Your task to perform on an android device: Go to accessibility settings Image 0: 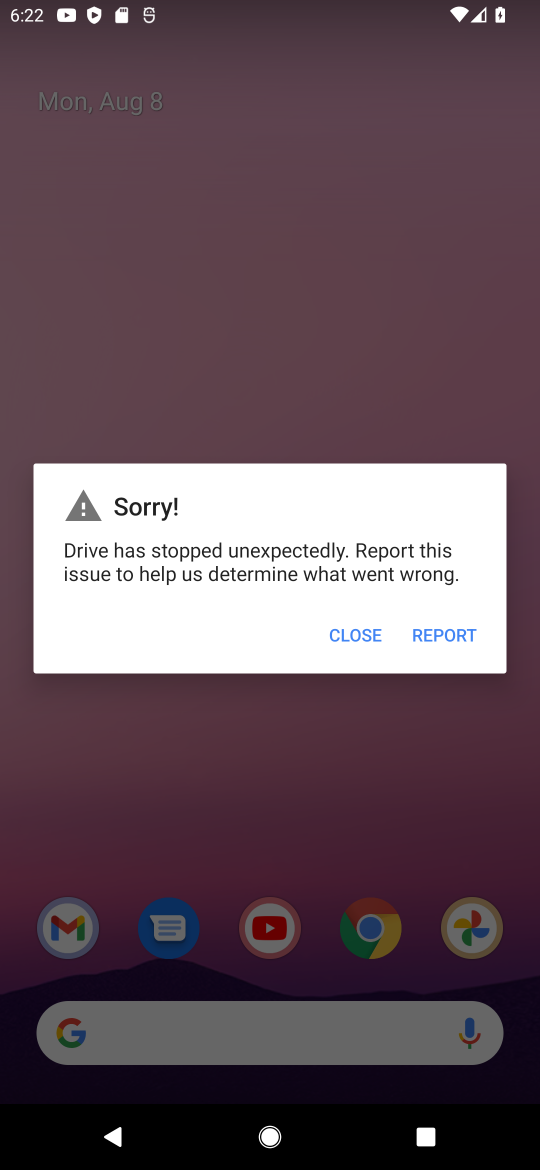
Step 0: press home button
Your task to perform on an android device: Go to accessibility settings Image 1: 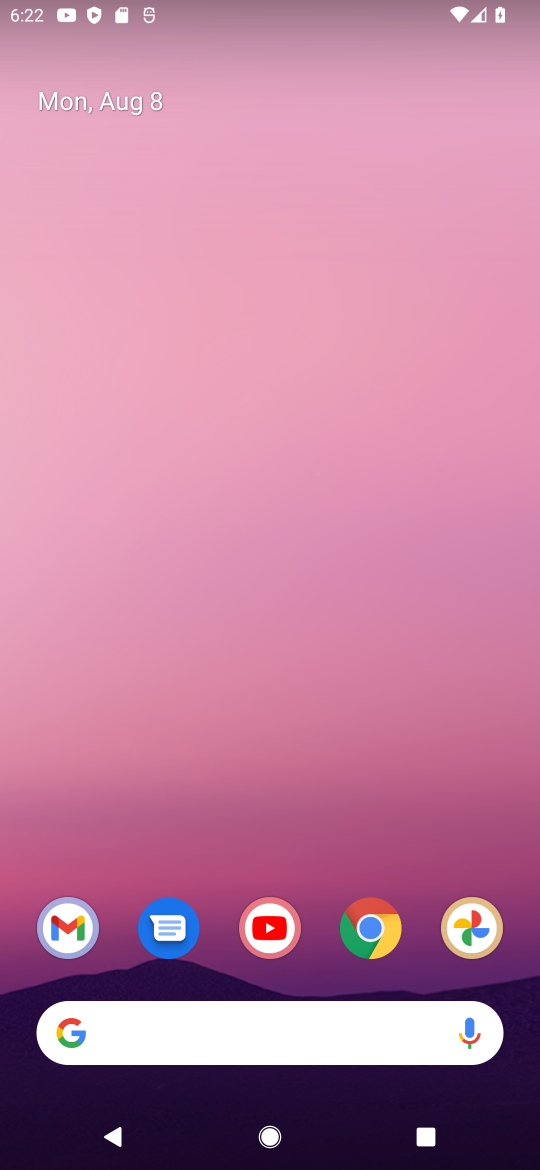
Step 1: drag from (361, 1076) to (390, 564)
Your task to perform on an android device: Go to accessibility settings Image 2: 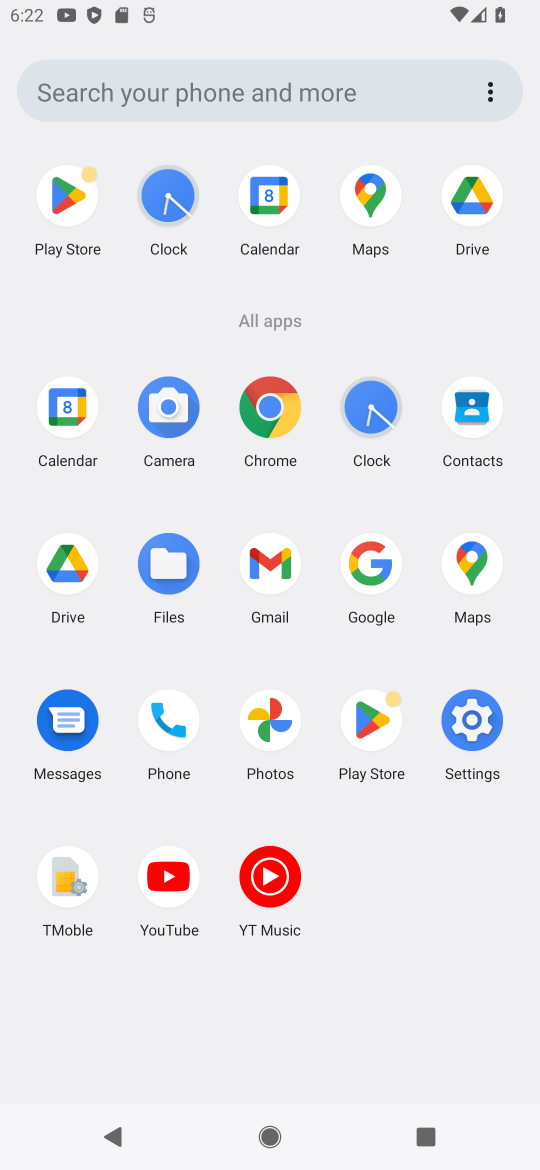
Step 2: click (482, 729)
Your task to perform on an android device: Go to accessibility settings Image 3: 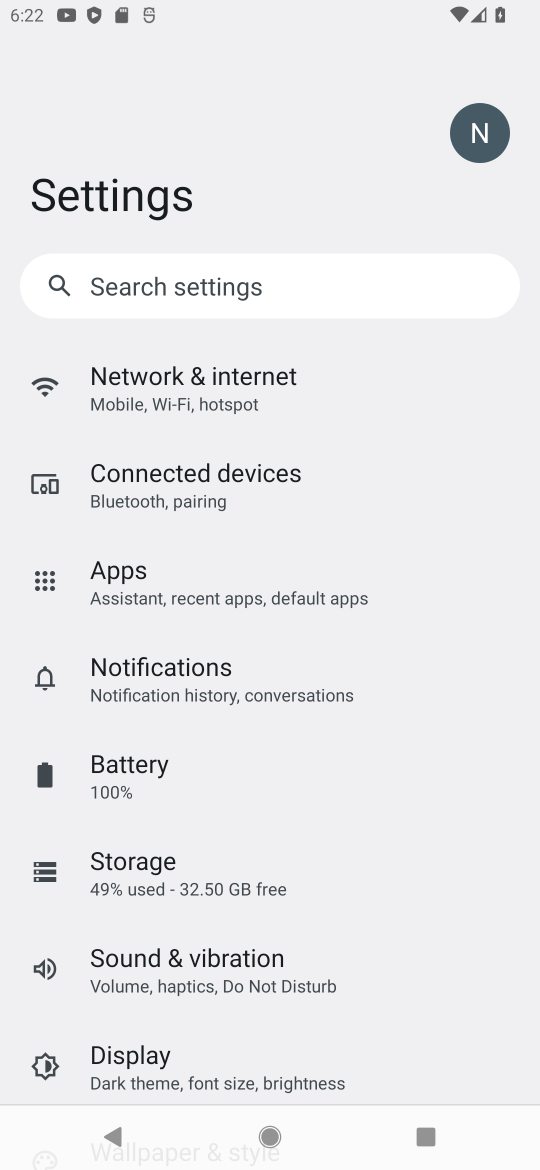
Step 3: click (211, 280)
Your task to perform on an android device: Go to accessibility settings Image 4: 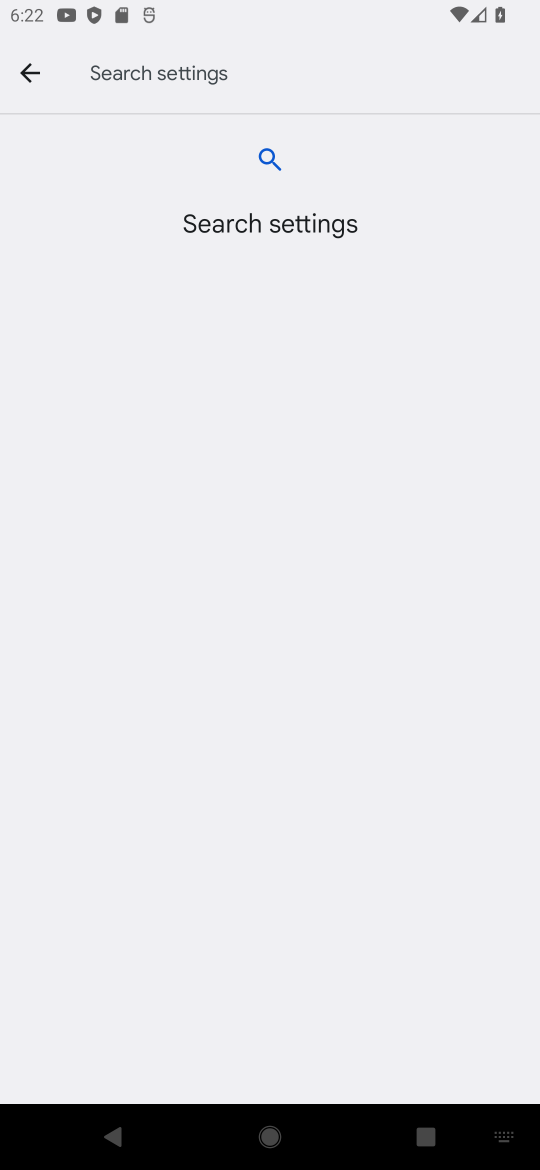
Step 4: drag from (473, 1142) to (450, 877)
Your task to perform on an android device: Go to accessibility settings Image 5: 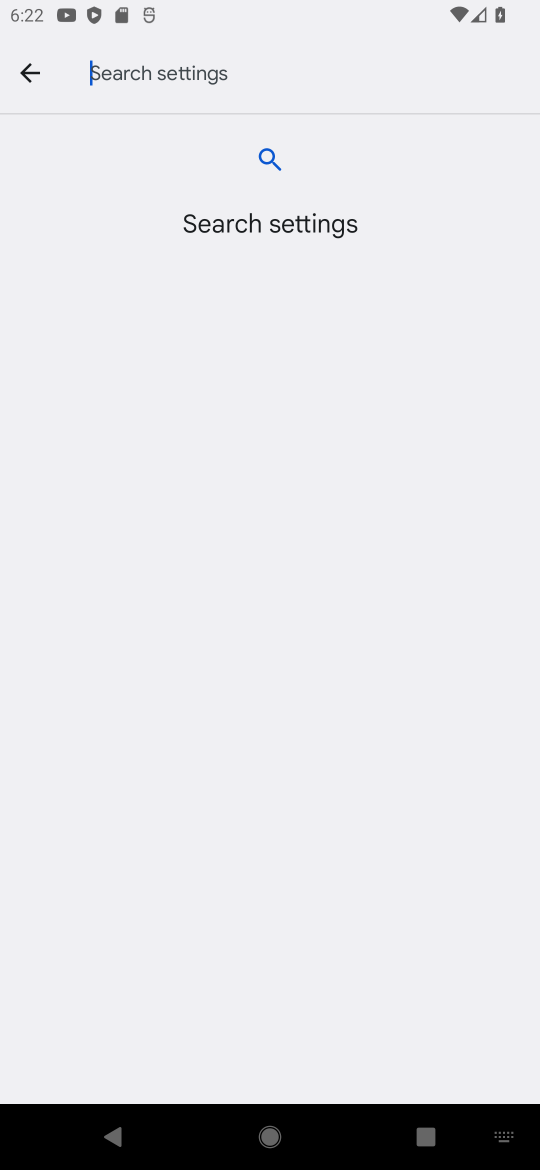
Step 5: click (500, 1134)
Your task to perform on an android device: Go to accessibility settings Image 6: 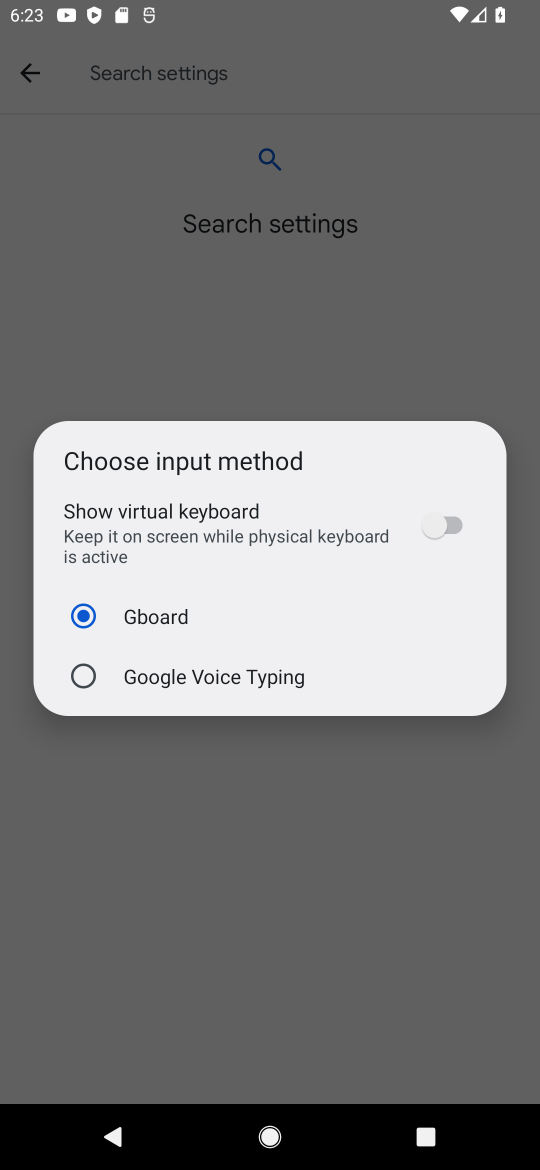
Step 6: click (440, 522)
Your task to perform on an android device: Go to accessibility settings Image 7: 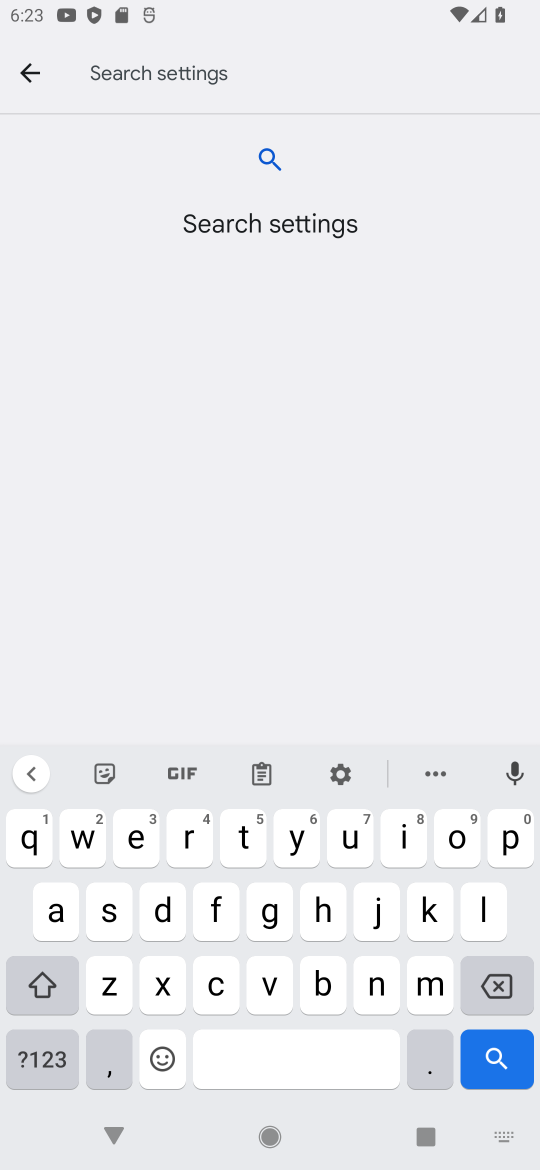
Step 7: click (47, 914)
Your task to perform on an android device: Go to accessibility settings Image 8: 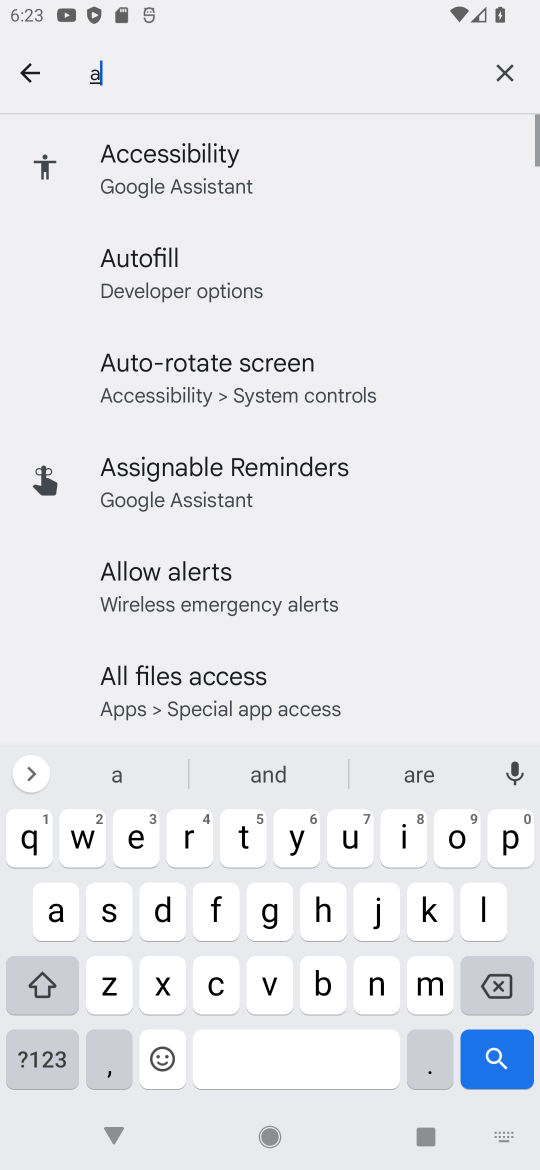
Step 8: click (208, 988)
Your task to perform on an android device: Go to accessibility settings Image 9: 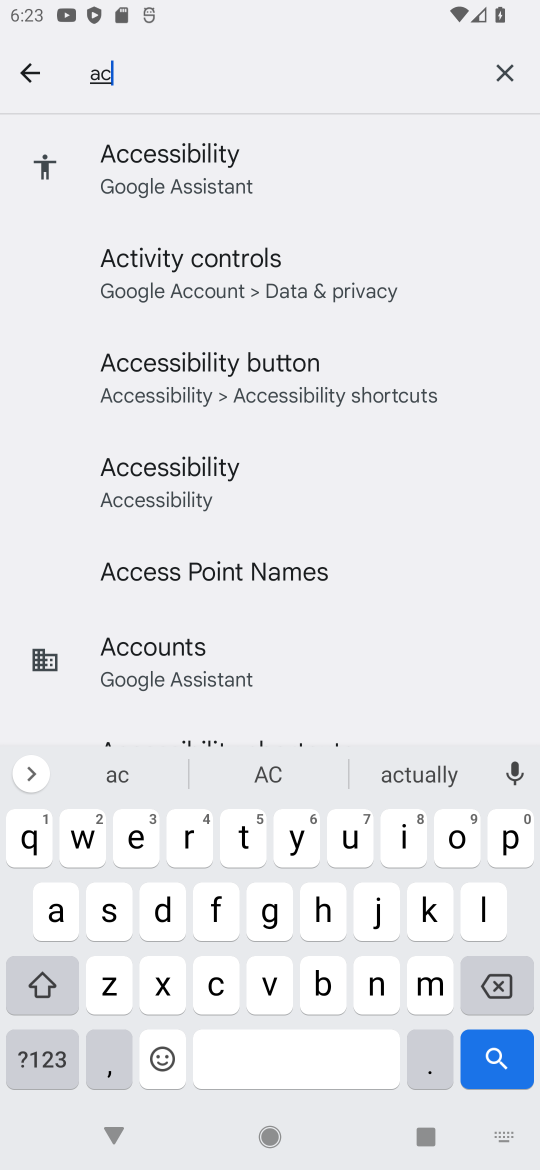
Step 9: click (198, 154)
Your task to perform on an android device: Go to accessibility settings Image 10: 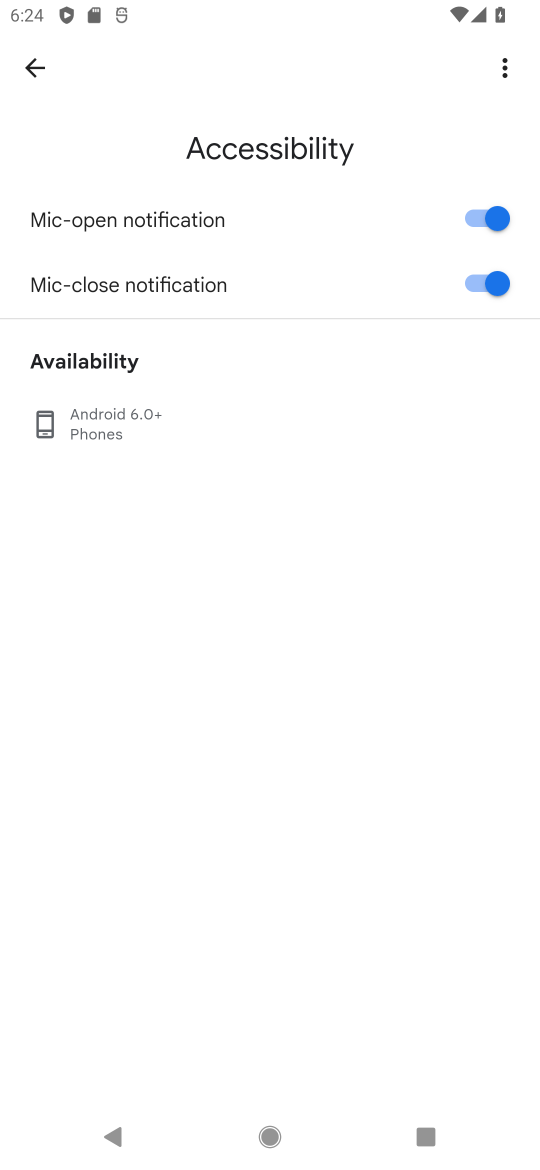
Step 10: task complete